Your task to perform on an android device: turn on data saver in the chrome app Image 0: 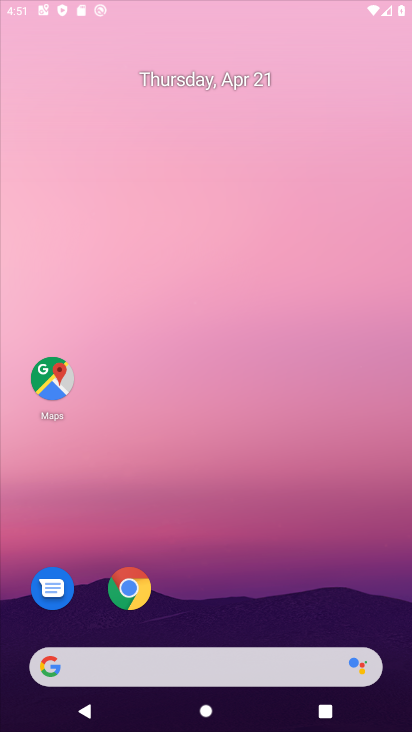
Step 0: click (127, 592)
Your task to perform on an android device: turn on data saver in the chrome app Image 1: 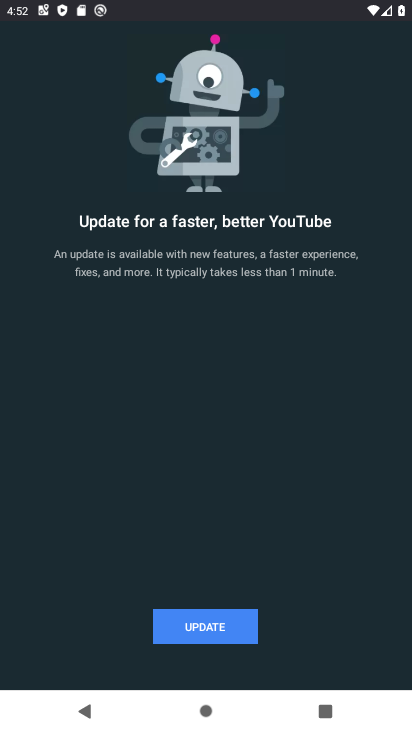
Step 1: press home button
Your task to perform on an android device: turn on data saver in the chrome app Image 2: 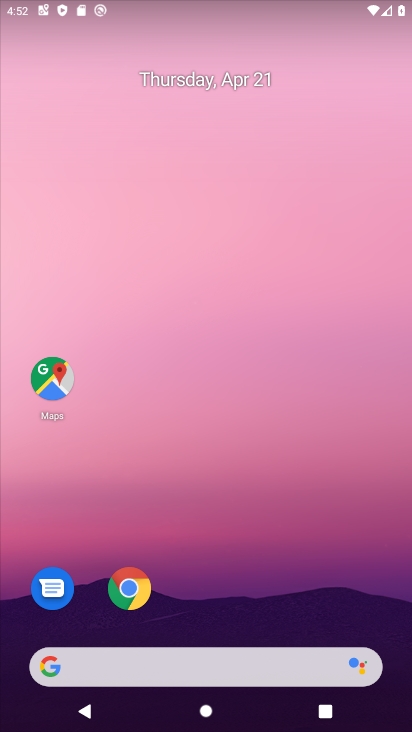
Step 2: click (124, 580)
Your task to perform on an android device: turn on data saver in the chrome app Image 3: 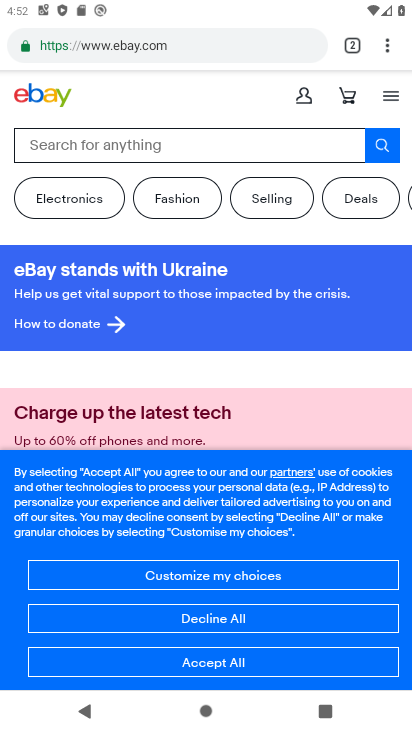
Step 3: drag from (387, 41) to (225, 548)
Your task to perform on an android device: turn on data saver in the chrome app Image 4: 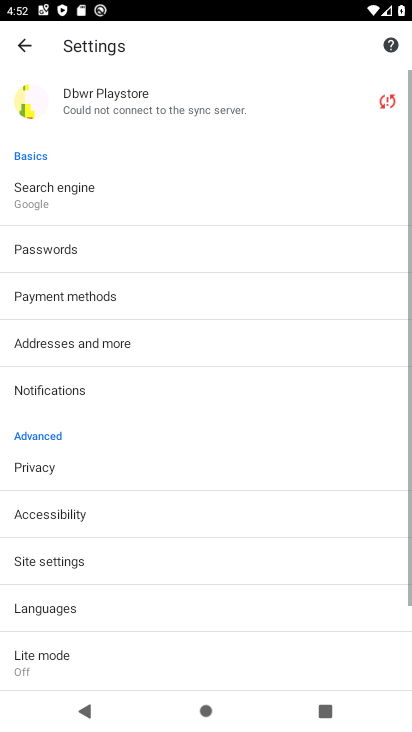
Step 4: click (25, 656)
Your task to perform on an android device: turn on data saver in the chrome app Image 5: 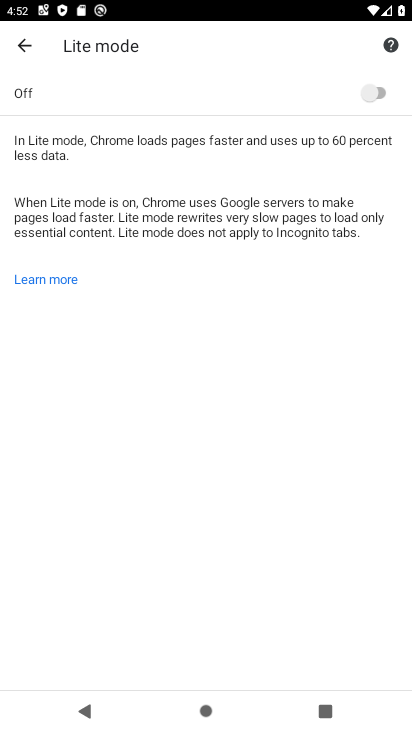
Step 5: click (373, 82)
Your task to perform on an android device: turn on data saver in the chrome app Image 6: 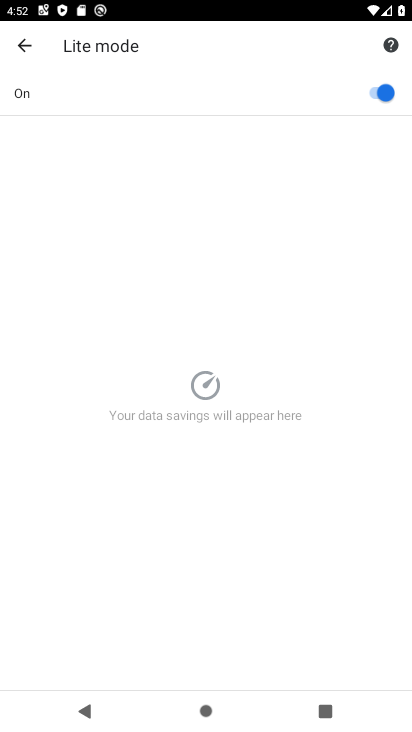
Step 6: task complete